Your task to perform on an android device: delete a single message in the gmail app Image 0: 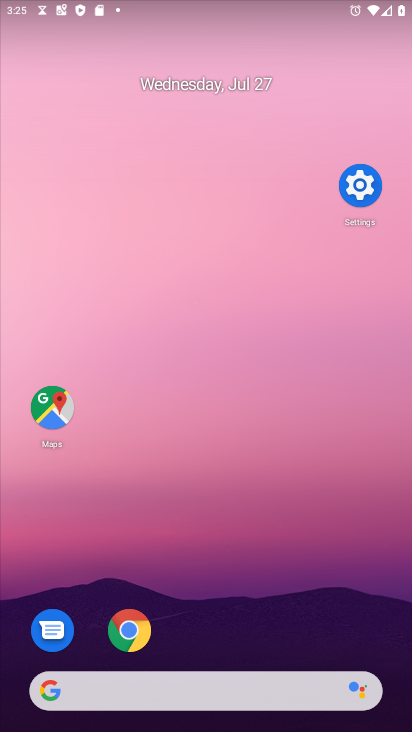
Step 0: press home button
Your task to perform on an android device: delete a single message in the gmail app Image 1: 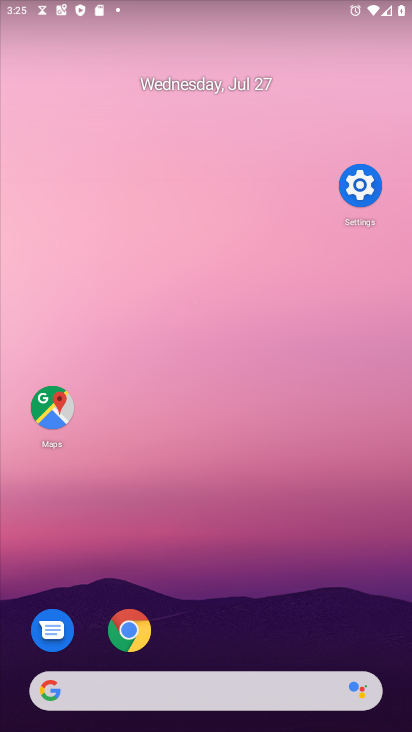
Step 1: press home button
Your task to perform on an android device: delete a single message in the gmail app Image 2: 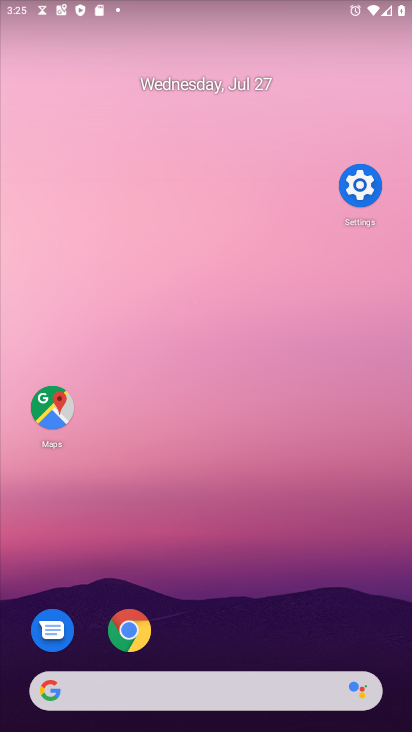
Step 2: drag from (244, 613) to (198, 56)
Your task to perform on an android device: delete a single message in the gmail app Image 3: 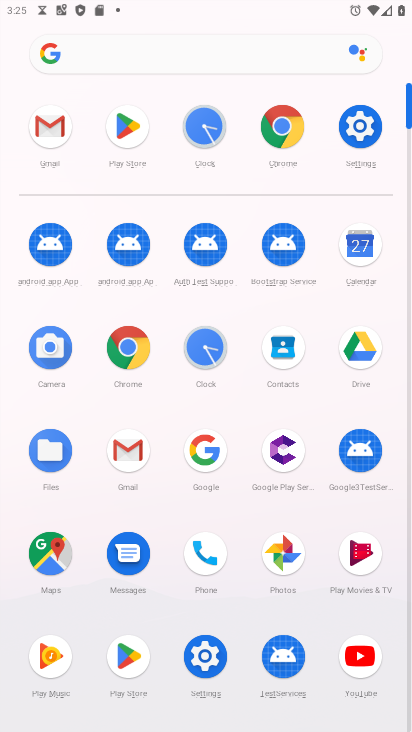
Step 3: click (48, 119)
Your task to perform on an android device: delete a single message in the gmail app Image 4: 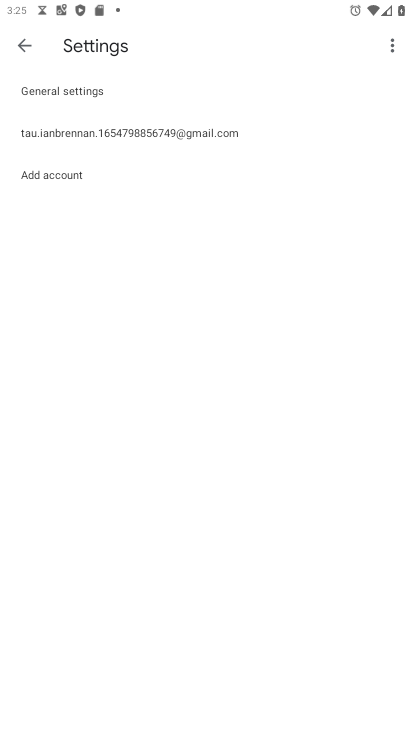
Step 4: click (18, 40)
Your task to perform on an android device: delete a single message in the gmail app Image 5: 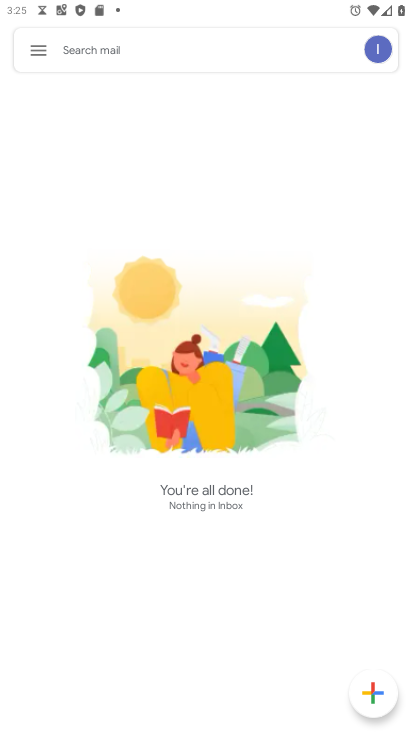
Step 5: click (40, 47)
Your task to perform on an android device: delete a single message in the gmail app Image 6: 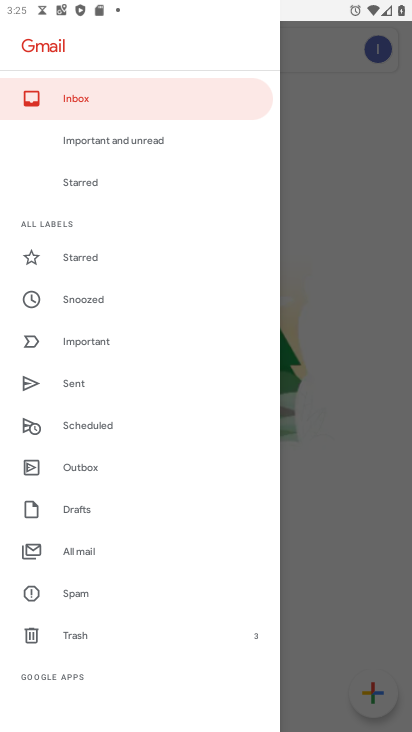
Step 6: click (74, 551)
Your task to perform on an android device: delete a single message in the gmail app Image 7: 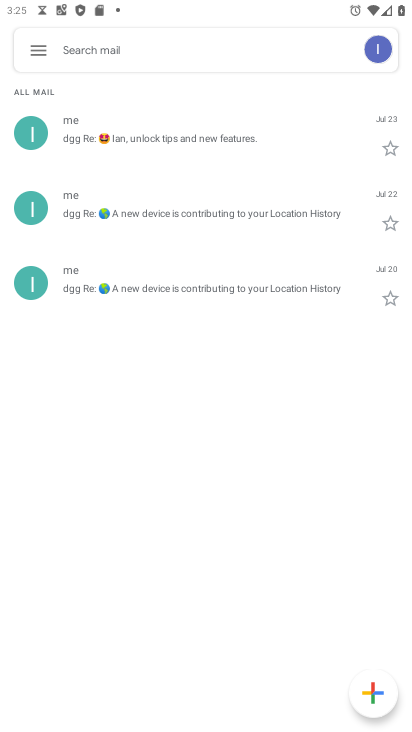
Step 7: click (182, 134)
Your task to perform on an android device: delete a single message in the gmail app Image 8: 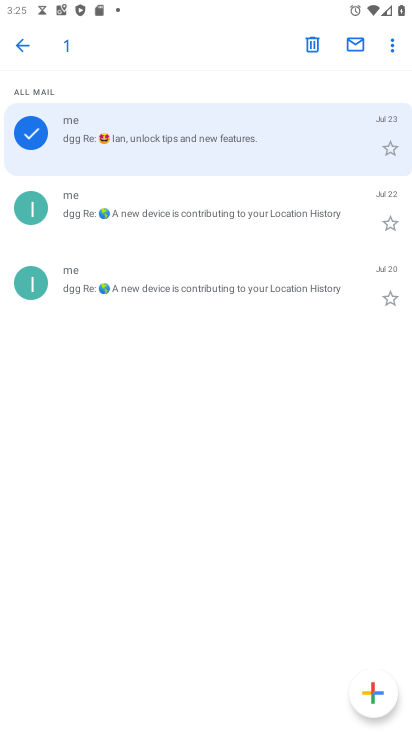
Step 8: click (315, 39)
Your task to perform on an android device: delete a single message in the gmail app Image 9: 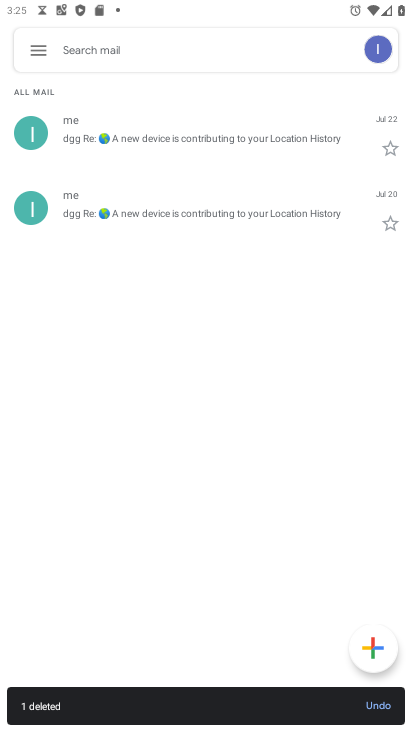
Step 9: task complete